Your task to perform on an android device: Turn off the flashlight Image 0: 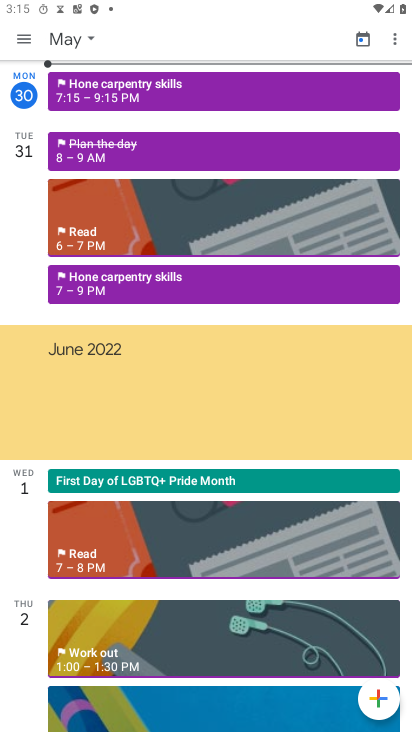
Step 0: press home button
Your task to perform on an android device: Turn off the flashlight Image 1: 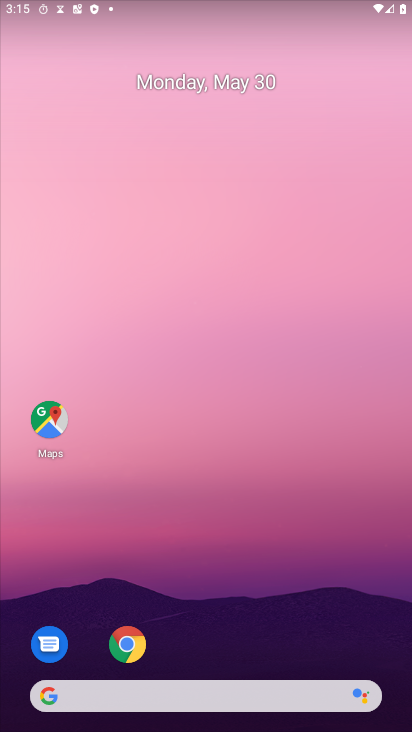
Step 1: task complete